Your task to perform on an android device: turn on the 12-hour format for clock Image 0: 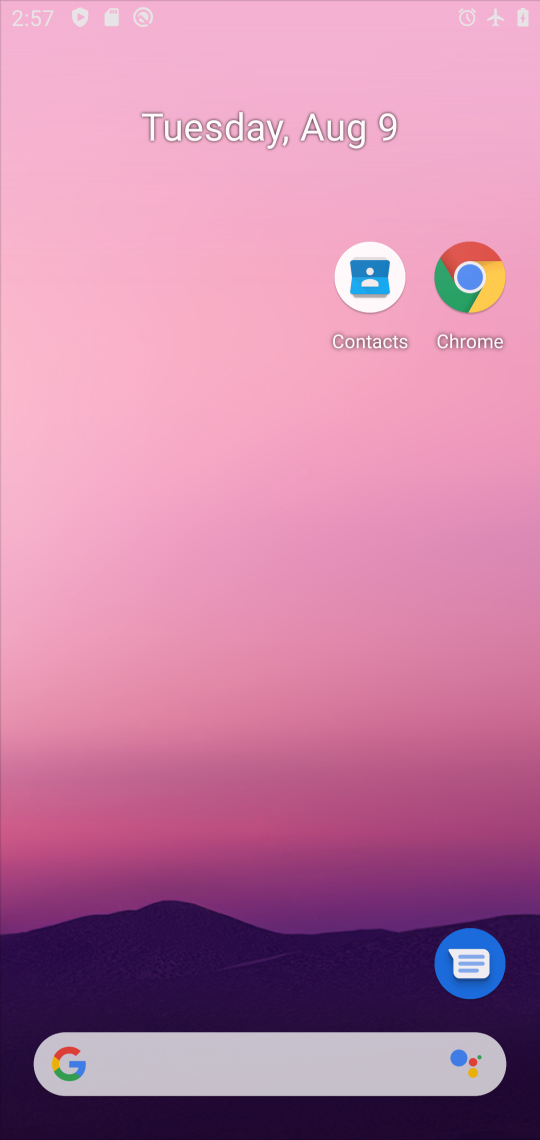
Step 0: drag from (536, 499) to (535, 629)
Your task to perform on an android device: turn on the 12-hour format for clock Image 1: 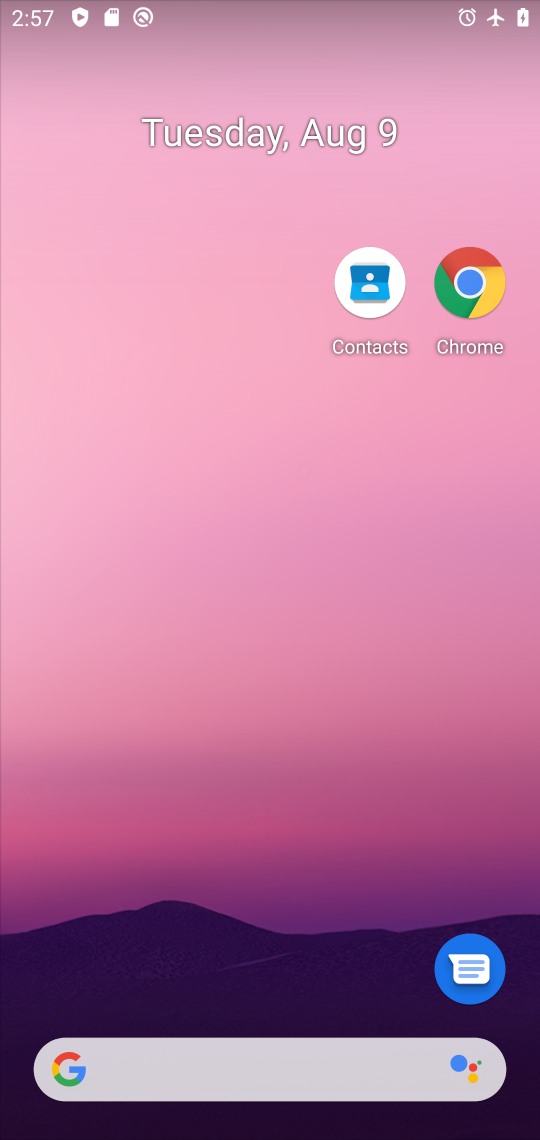
Step 1: drag from (278, 929) to (382, 139)
Your task to perform on an android device: turn on the 12-hour format for clock Image 2: 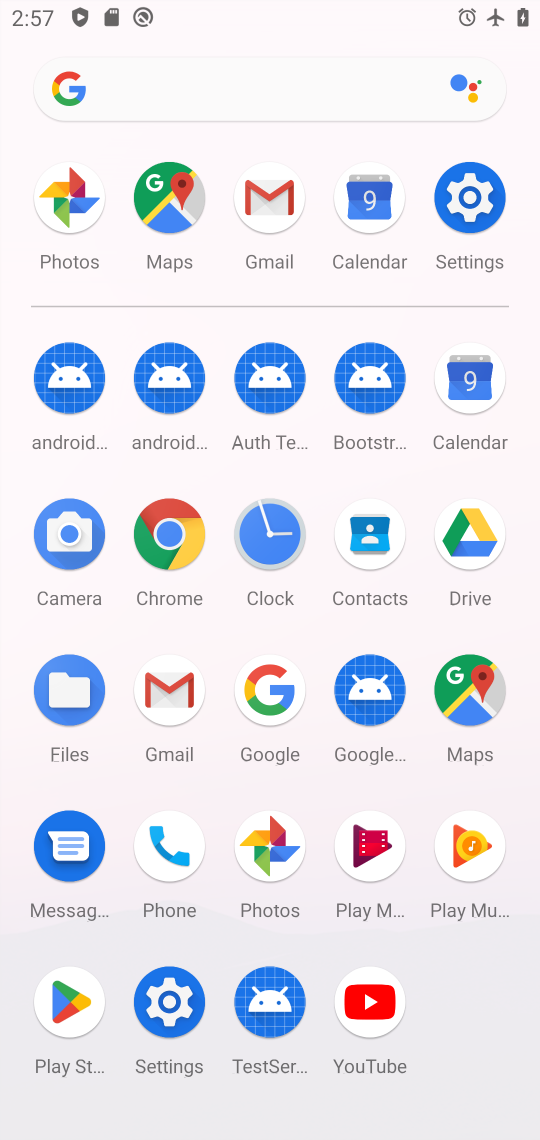
Step 2: click (284, 519)
Your task to perform on an android device: turn on the 12-hour format for clock Image 3: 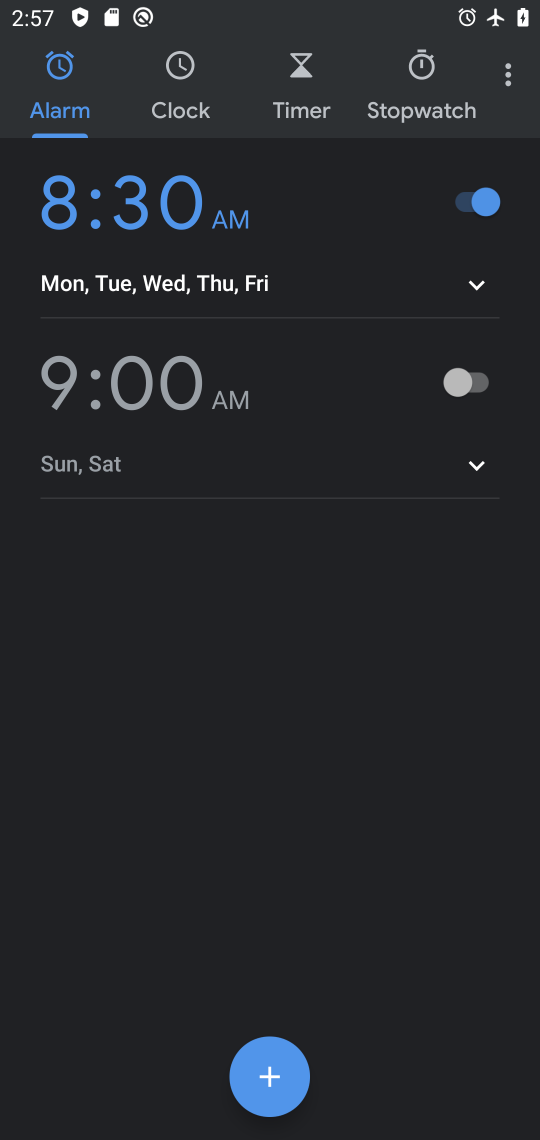
Step 3: drag from (509, 70) to (356, 155)
Your task to perform on an android device: turn on the 12-hour format for clock Image 4: 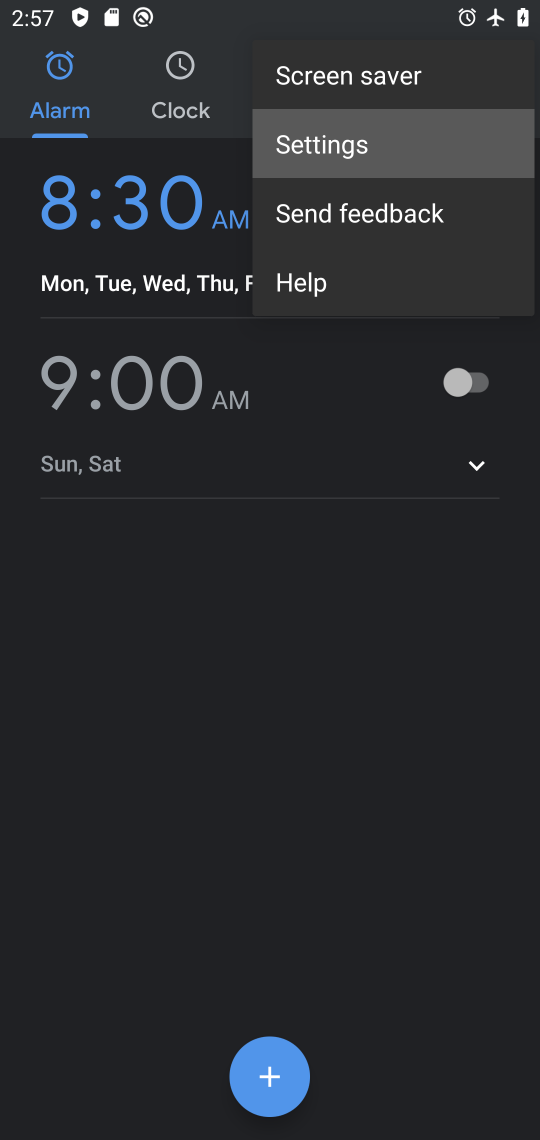
Step 4: click (356, 155)
Your task to perform on an android device: turn on the 12-hour format for clock Image 5: 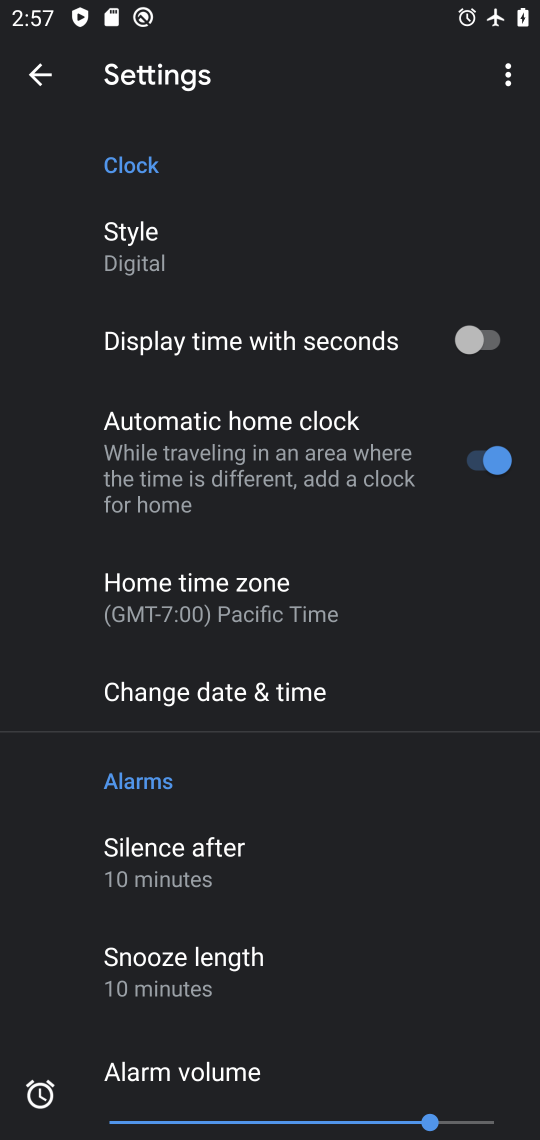
Step 5: click (302, 701)
Your task to perform on an android device: turn on the 12-hour format for clock Image 6: 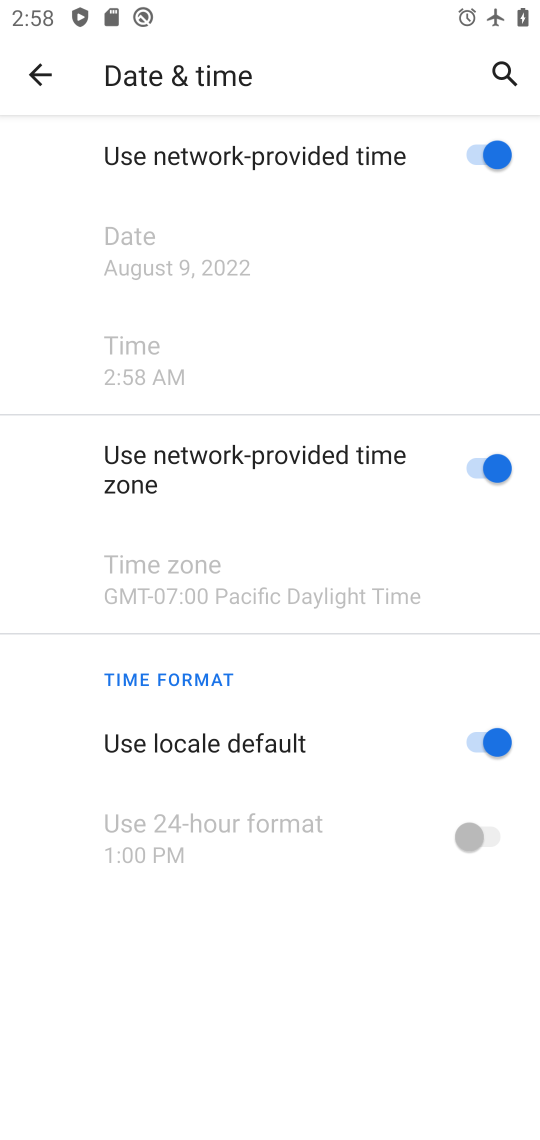
Step 6: task complete